Your task to perform on an android device: Set the phone to "Do not disturb". Image 0: 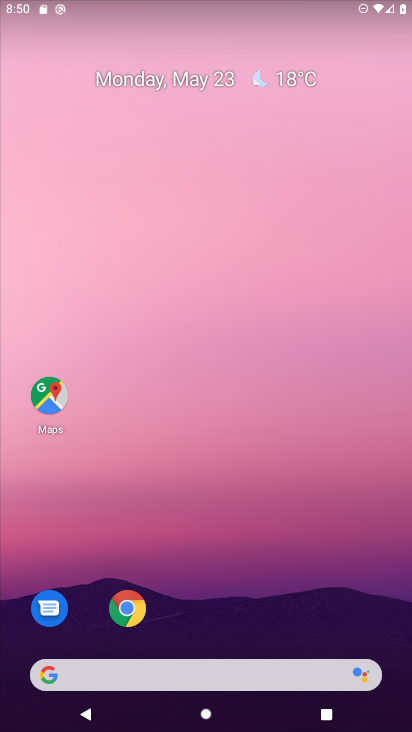
Step 0: drag from (224, 725) to (239, 135)
Your task to perform on an android device: Set the phone to "Do not disturb". Image 1: 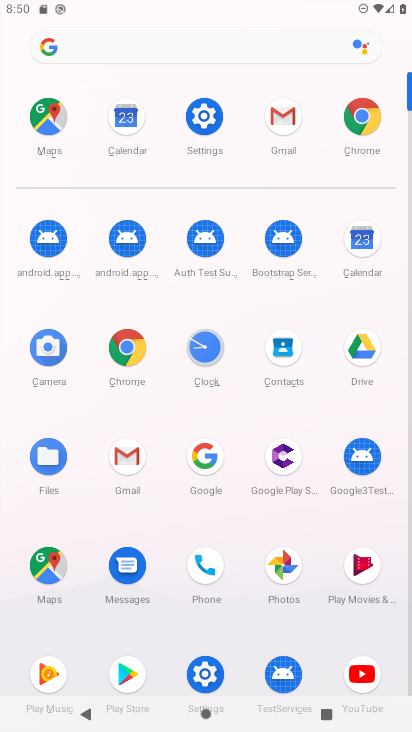
Step 1: click (211, 125)
Your task to perform on an android device: Set the phone to "Do not disturb". Image 2: 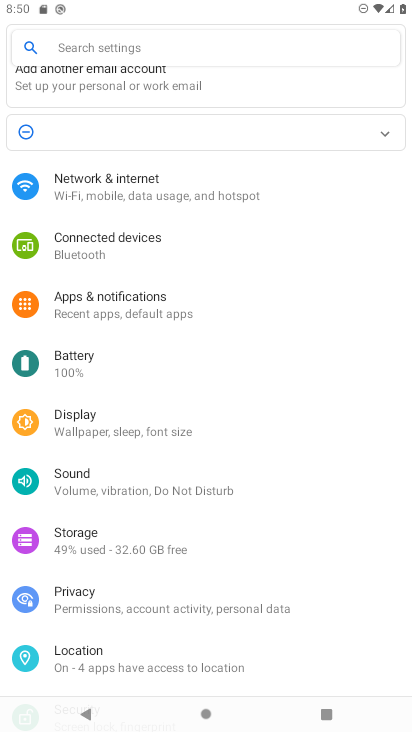
Step 2: click (184, 492)
Your task to perform on an android device: Set the phone to "Do not disturb". Image 3: 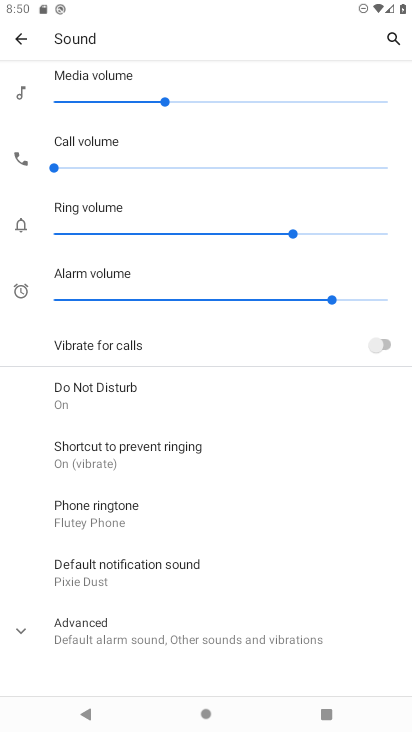
Step 3: click (63, 395)
Your task to perform on an android device: Set the phone to "Do not disturb". Image 4: 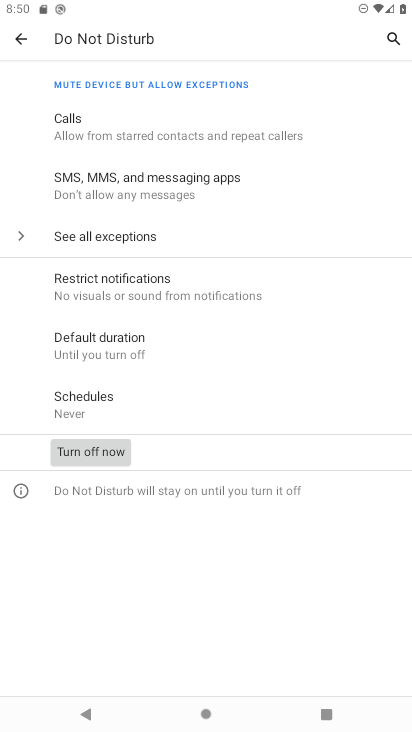
Step 4: task complete